Your task to perform on an android device: Open sound settings Image 0: 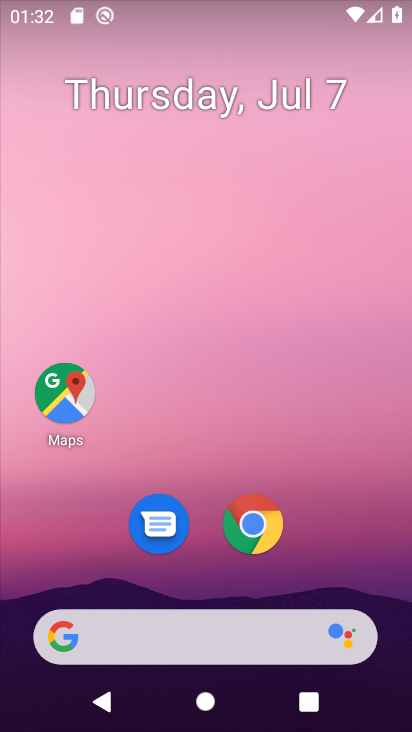
Step 0: drag from (276, 477) to (262, 39)
Your task to perform on an android device: Open sound settings Image 1: 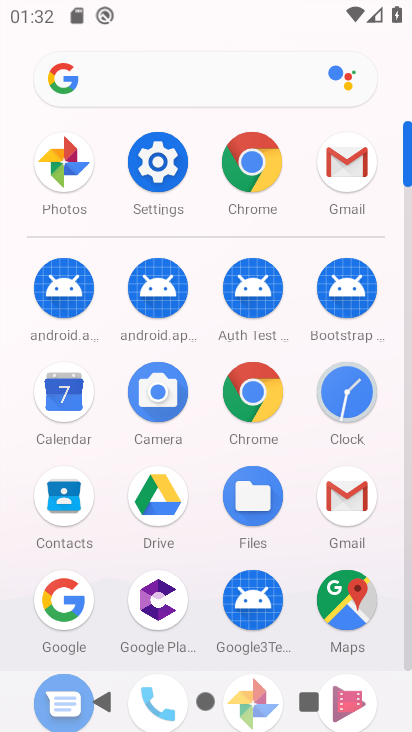
Step 1: click (177, 152)
Your task to perform on an android device: Open sound settings Image 2: 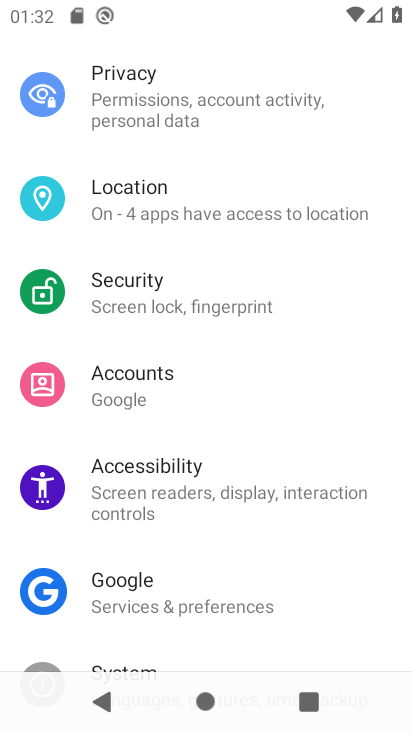
Step 2: drag from (206, 221) to (196, 553)
Your task to perform on an android device: Open sound settings Image 3: 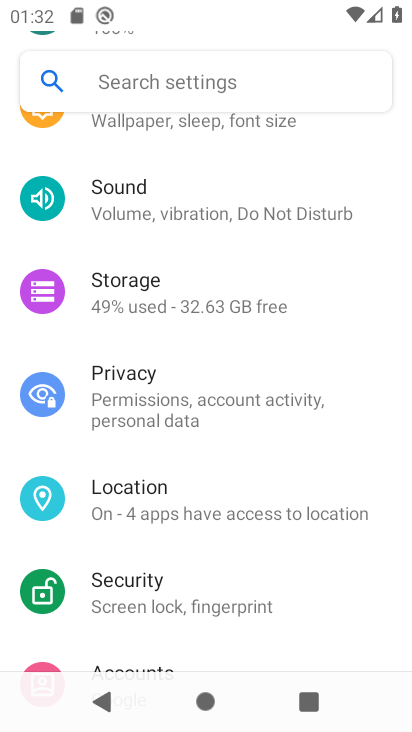
Step 3: click (168, 191)
Your task to perform on an android device: Open sound settings Image 4: 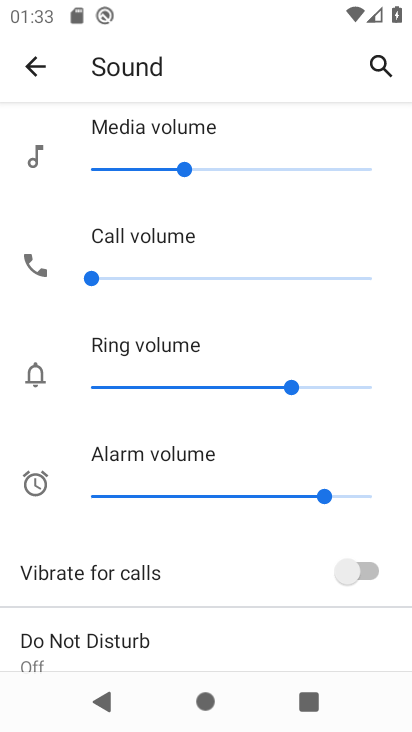
Step 4: task complete